Your task to perform on an android device: set default search engine in the chrome app Image 0: 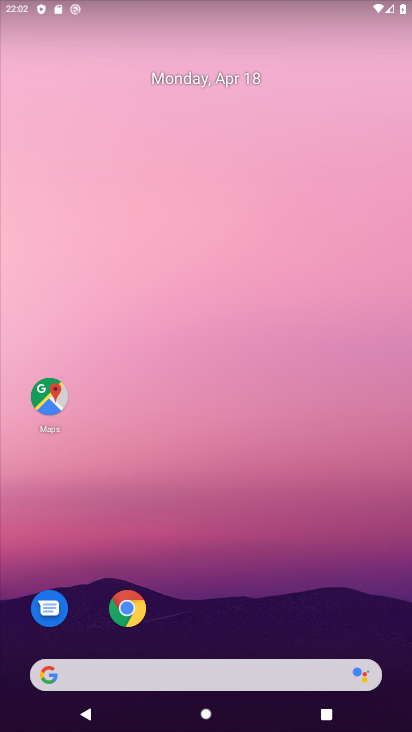
Step 0: drag from (244, 526) to (255, 77)
Your task to perform on an android device: set default search engine in the chrome app Image 1: 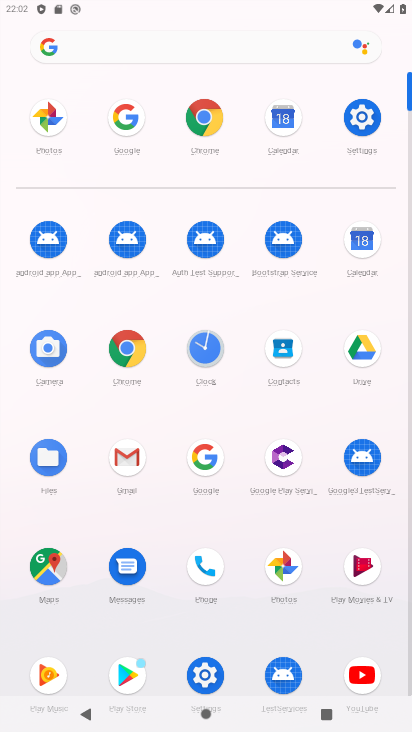
Step 1: click (204, 116)
Your task to perform on an android device: set default search engine in the chrome app Image 2: 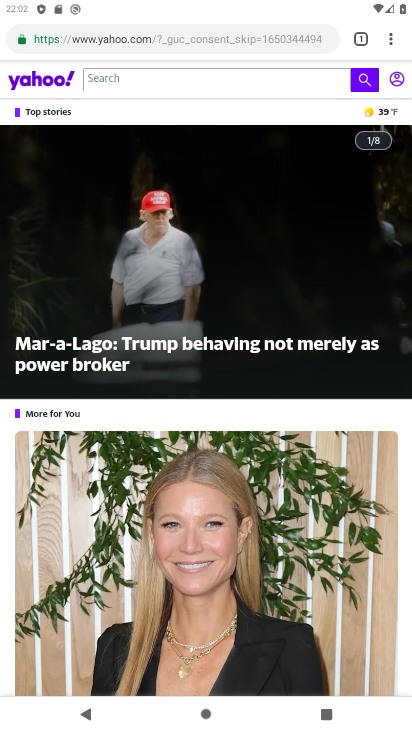
Step 2: click (389, 40)
Your task to perform on an android device: set default search engine in the chrome app Image 3: 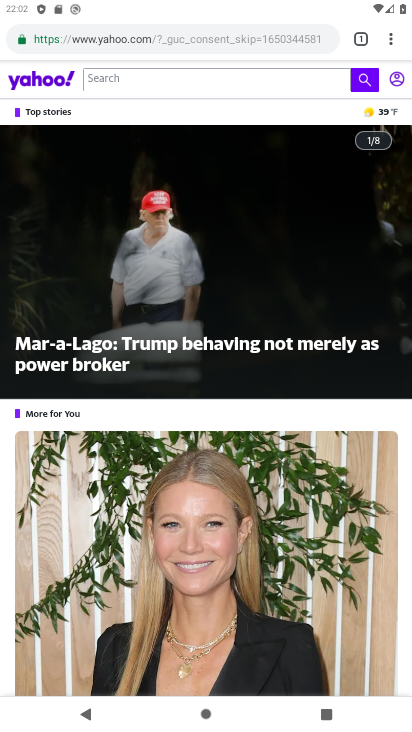
Step 3: click (387, 39)
Your task to perform on an android device: set default search engine in the chrome app Image 4: 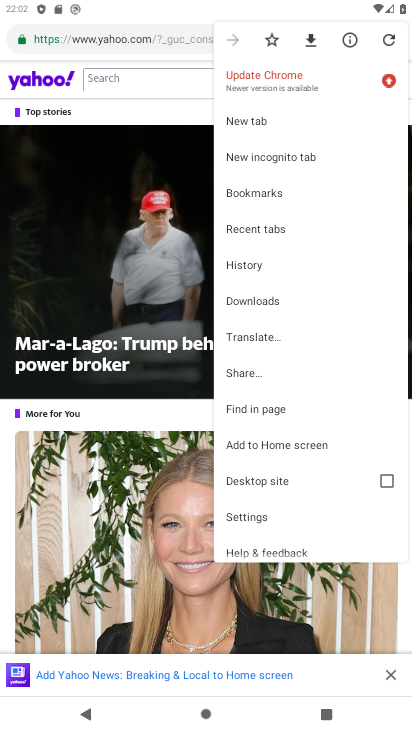
Step 4: click (257, 515)
Your task to perform on an android device: set default search engine in the chrome app Image 5: 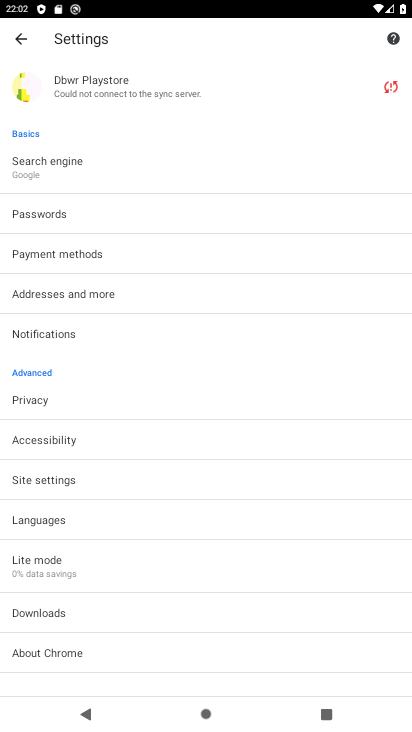
Step 5: click (47, 173)
Your task to perform on an android device: set default search engine in the chrome app Image 6: 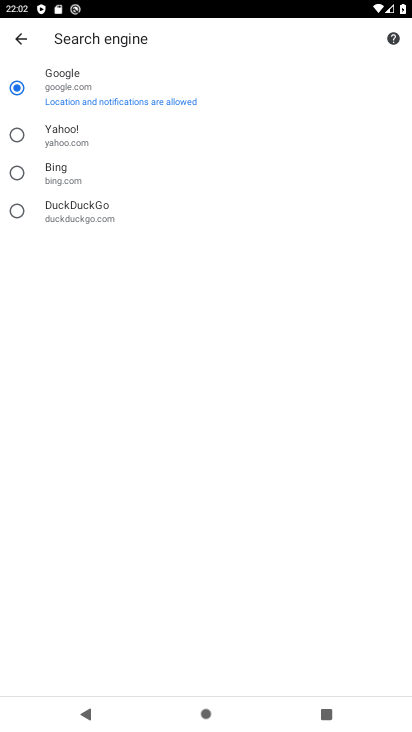
Step 6: task complete